Your task to perform on an android device: Search for sushi restaurants on Maps Image 0: 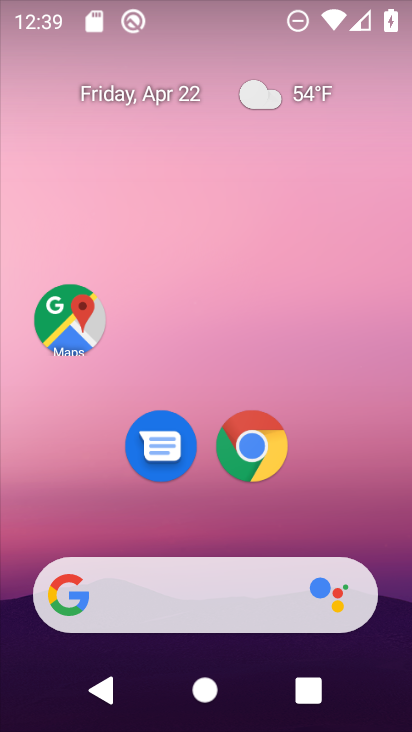
Step 0: click (47, 306)
Your task to perform on an android device: Search for sushi restaurants on Maps Image 1: 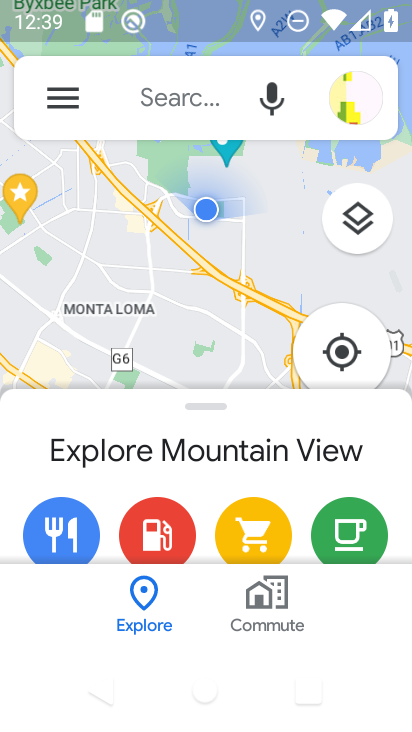
Step 1: click (161, 92)
Your task to perform on an android device: Search for sushi restaurants on Maps Image 2: 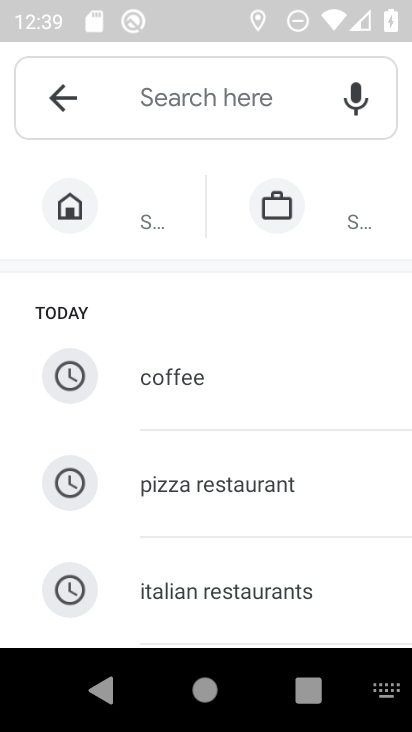
Step 2: type "sushi restaurants"
Your task to perform on an android device: Search for sushi restaurants on Maps Image 3: 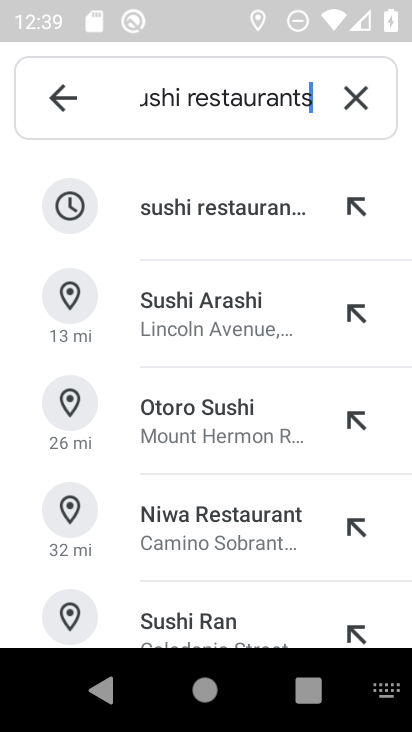
Step 3: click (253, 191)
Your task to perform on an android device: Search for sushi restaurants on Maps Image 4: 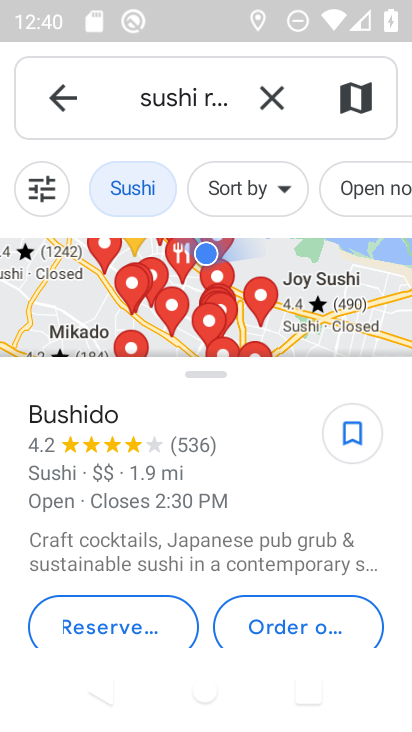
Step 4: task complete